Your task to perform on an android device: How big is a dinosaur? Image 0: 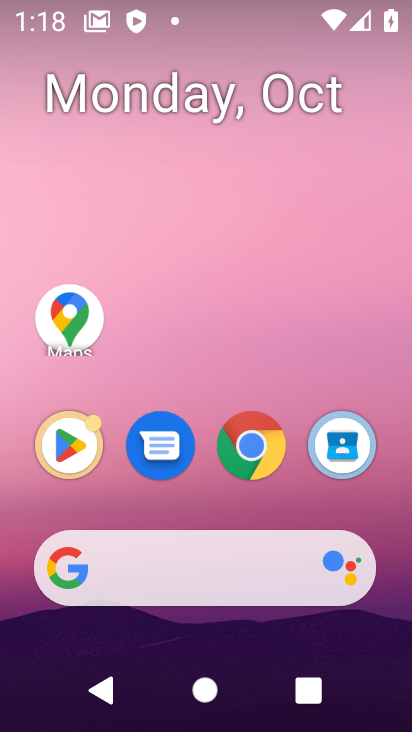
Step 0: click (227, 555)
Your task to perform on an android device: How big is a dinosaur? Image 1: 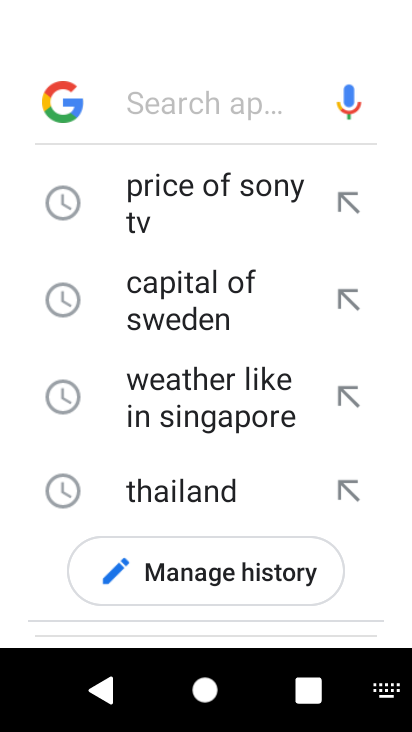
Step 1: type "How big is a dinosaur?"
Your task to perform on an android device: How big is a dinosaur? Image 2: 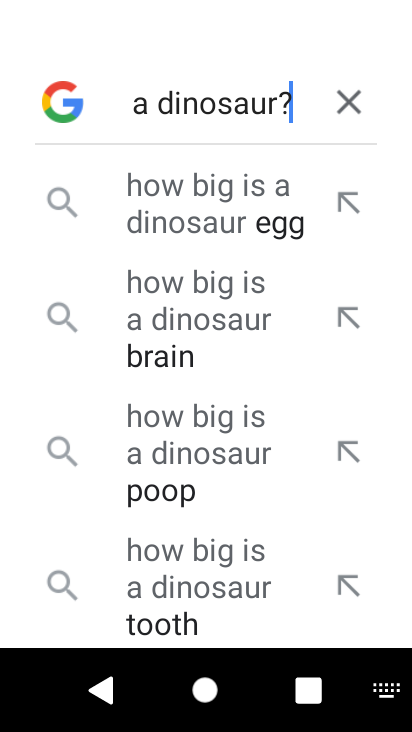
Step 2: type ""
Your task to perform on an android device: How big is a dinosaur? Image 3: 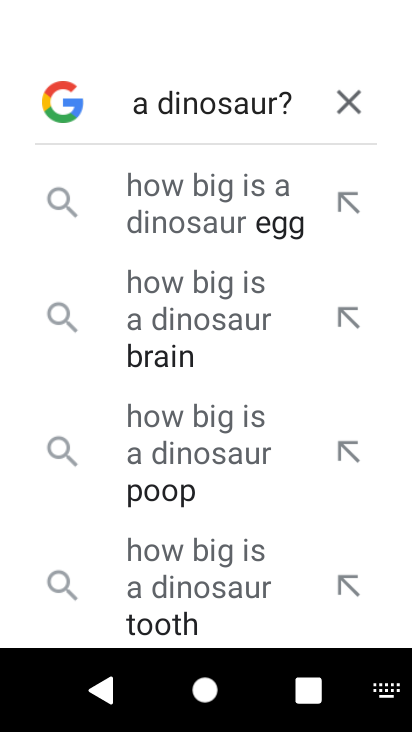
Step 3: drag from (239, 506) to (254, 252)
Your task to perform on an android device: How big is a dinosaur? Image 4: 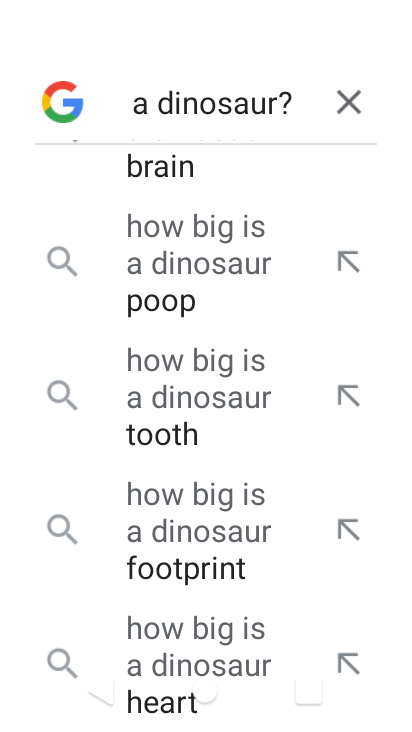
Step 4: drag from (258, 519) to (254, 253)
Your task to perform on an android device: How big is a dinosaur? Image 5: 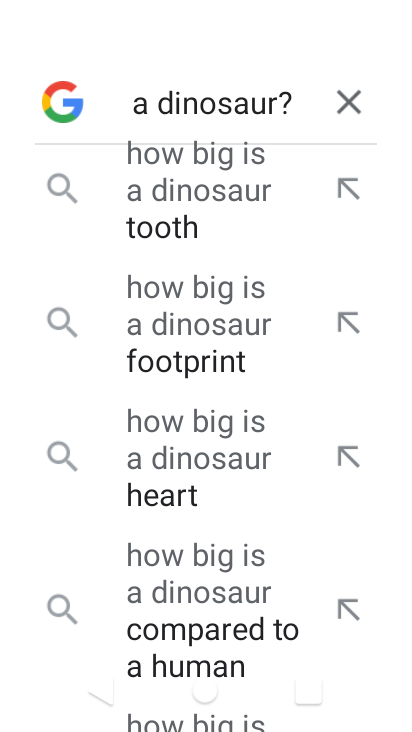
Step 5: drag from (239, 441) to (234, 182)
Your task to perform on an android device: How big is a dinosaur? Image 6: 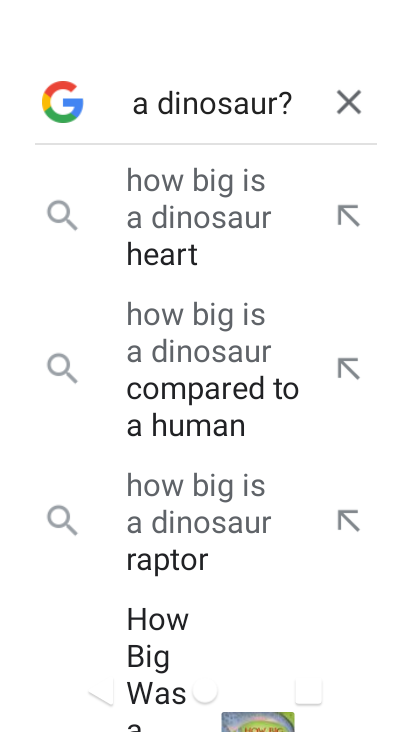
Step 6: drag from (208, 618) to (236, 410)
Your task to perform on an android device: How big is a dinosaur? Image 7: 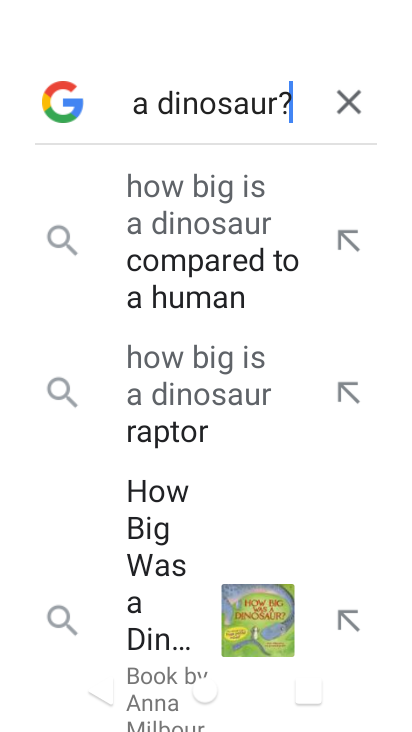
Step 7: drag from (194, 595) to (275, 311)
Your task to perform on an android device: How big is a dinosaur? Image 8: 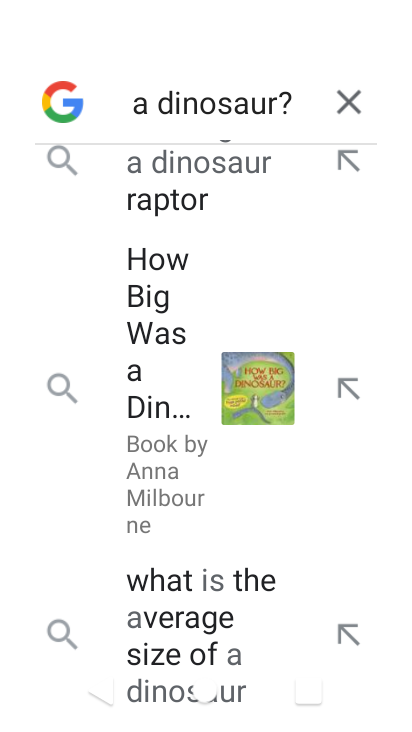
Step 8: drag from (205, 540) to (251, 266)
Your task to perform on an android device: How big is a dinosaur? Image 9: 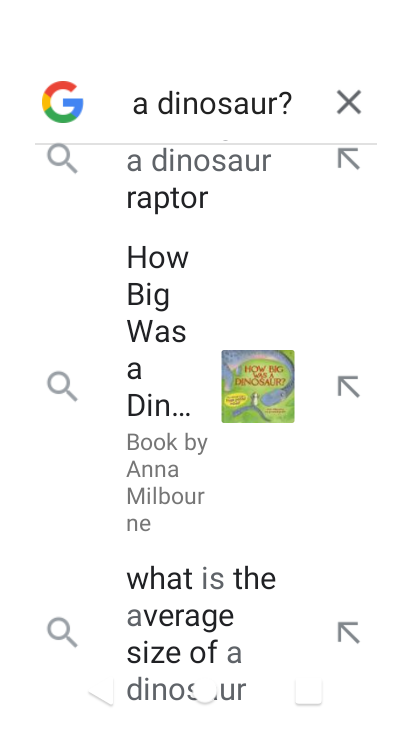
Step 9: drag from (221, 548) to (245, 270)
Your task to perform on an android device: How big is a dinosaur? Image 10: 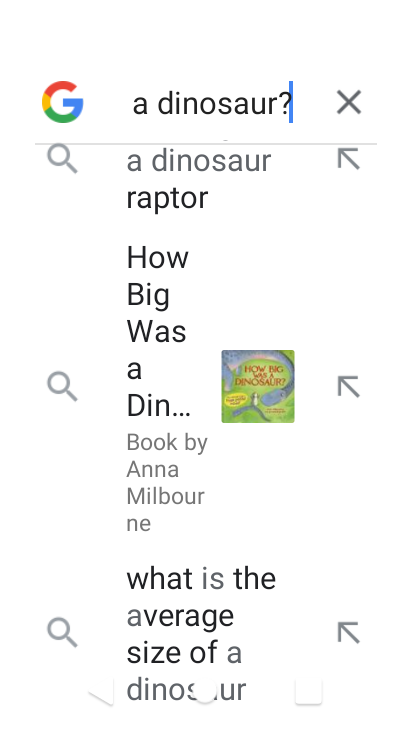
Step 10: drag from (212, 563) to (222, 299)
Your task to perform on an android device: How big is a dinosaur? Image 11: 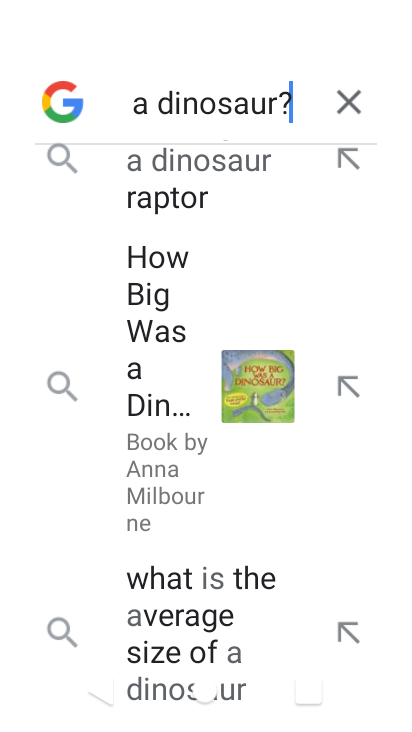
Step 11: drag from (222, 251) to (255, 630)
Your task to perform on an android device: How big is a dinosaur? Image 12: 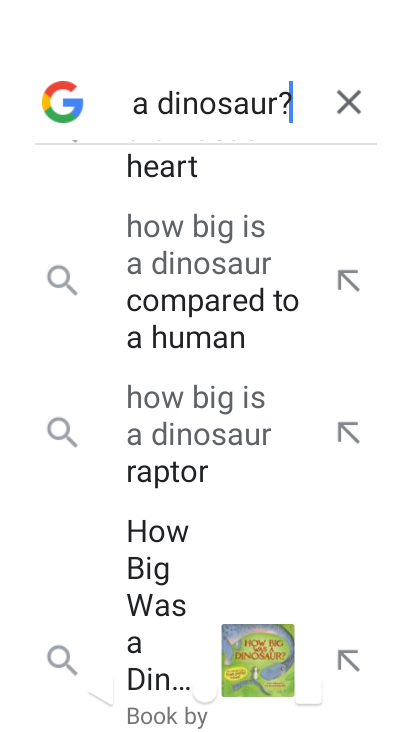
Step 12: drag from (235, 391) to (242, 626)
Your task to perform on an android device: How big is a dinosaur? Image 13: 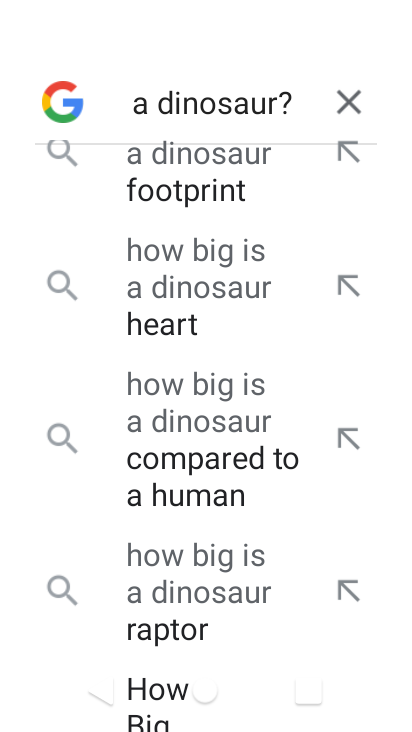
Step 13: drag from (197, 209) to (219, 467)
Your task to perform on an android device: How big is a dinosaur? Image 14: 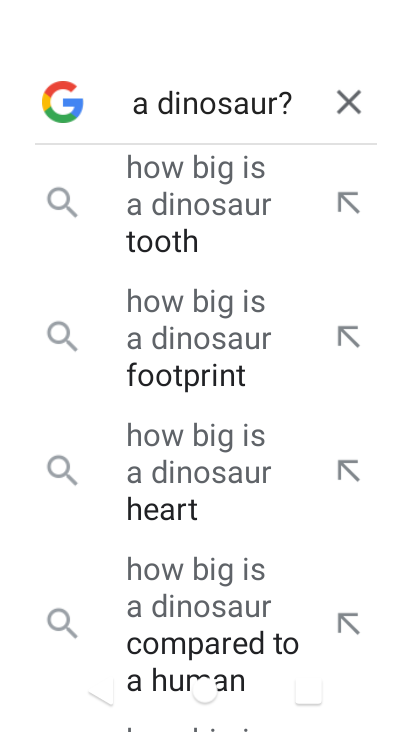
Step 14: drag from (222, 263) to (227, 553)
Your task to perform on an android device: How big is a dinosaur? Image 15: 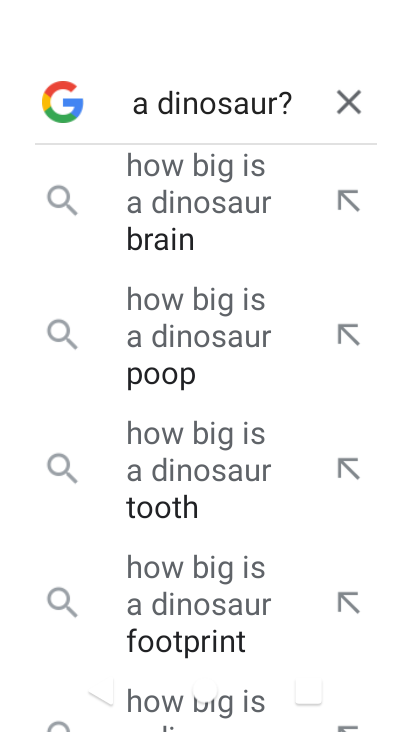
Step 15: drag from (236, 216) to (254, 554)
Your task to perform on an android device: How big is a dinosaur? Image 16: 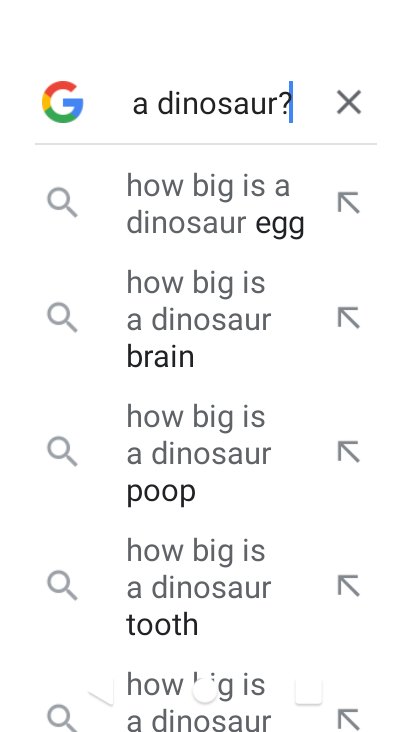
Step 16: click (280, 197)
Your task to perform on an android device: How big is a dinosaur? Image 17: 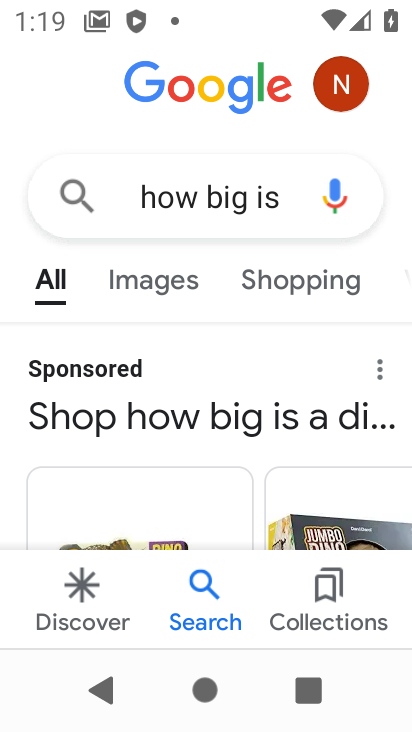
Step 17: task complete